Your task to perform on an android device: turn off priority inbox in the gmail app Image 0: 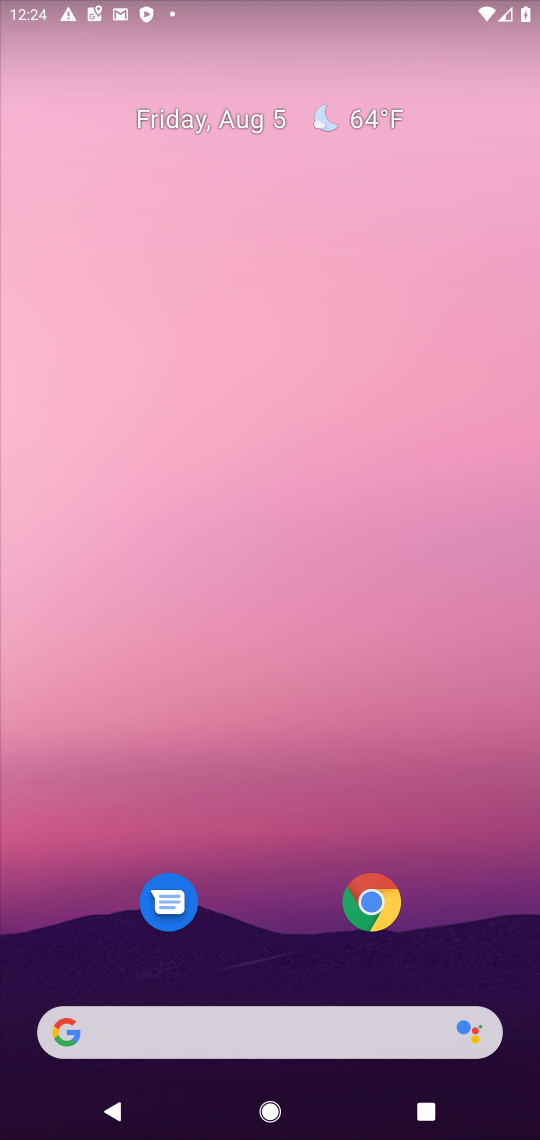
Step 0: drag from (280, 955) to (238, 188)
Your task to perform on an android device: turn off priority inbox in the gmail app Image 1: 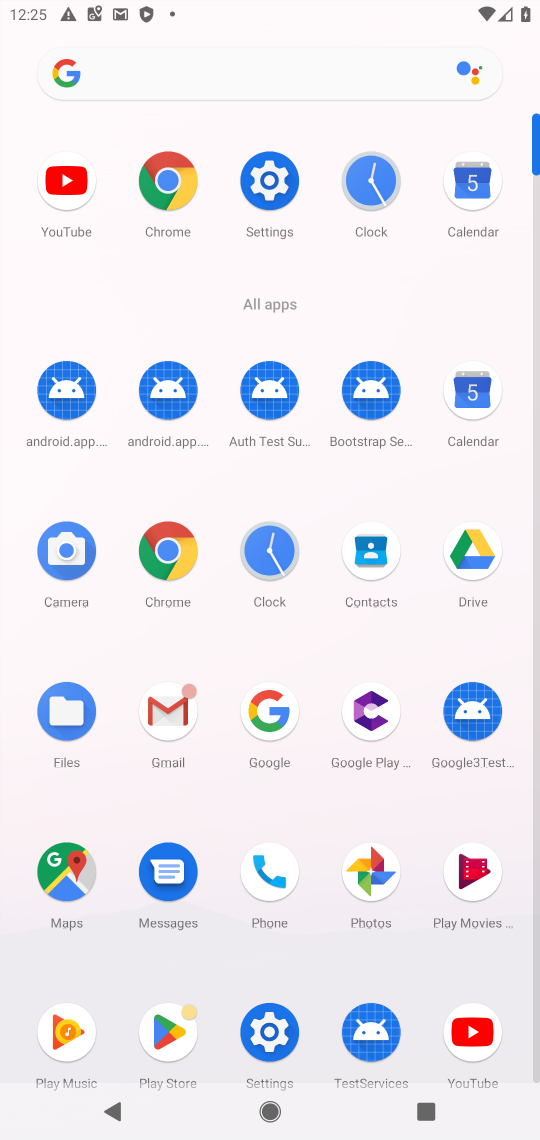
Step 1: click (158, 700)
Your task to perform on an android device: turn off priority inbox in the gmail app Image 2: 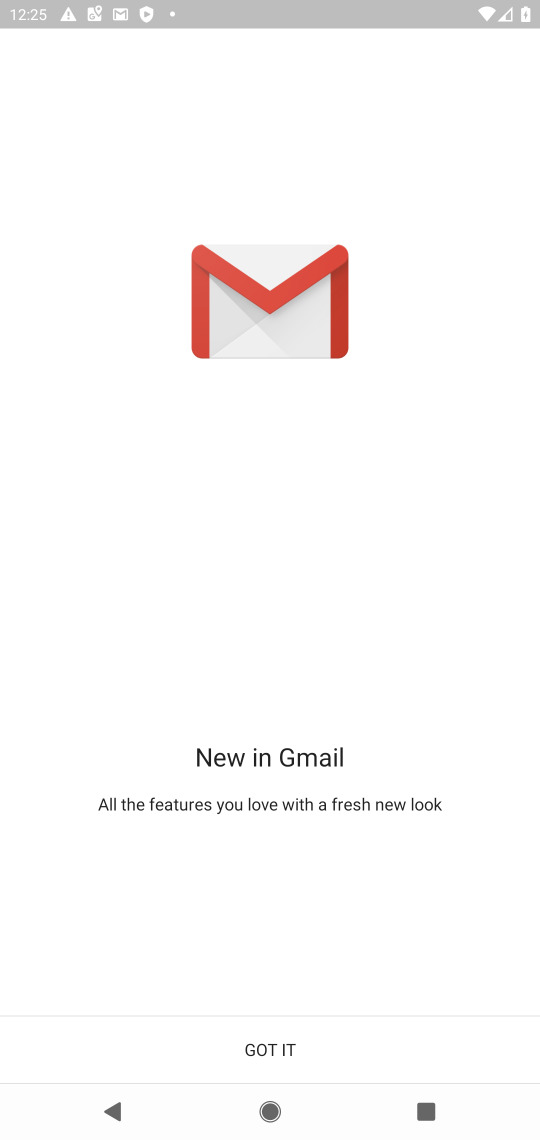
Step 2: click (276, 1046)
Your task to perform on an android device: turn off priority inbox in the gmail app Image 3: 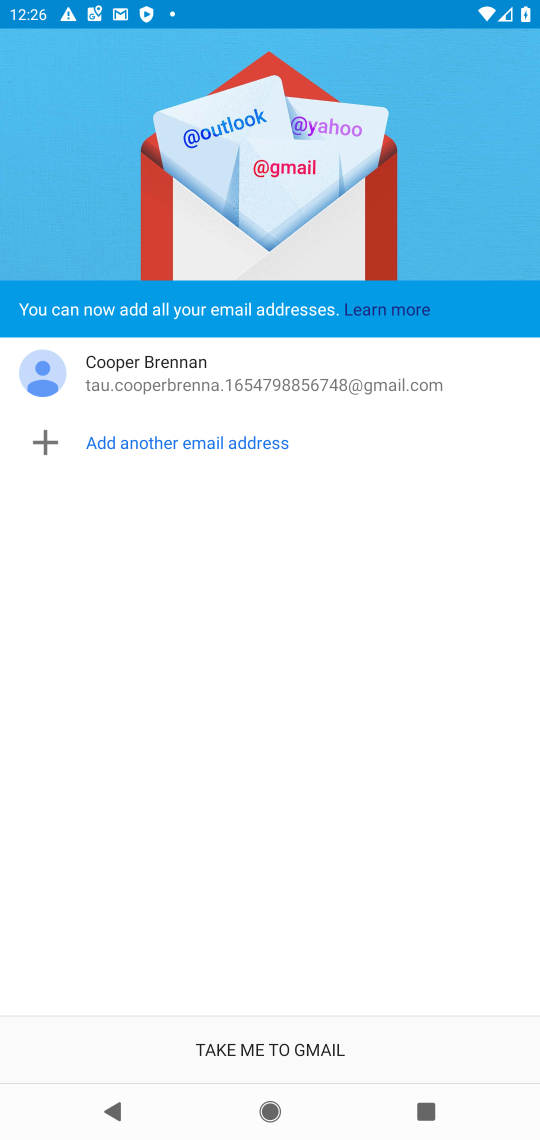
Step 3: click (275, 1041)
Your task to perform on an android device: turn off priority inbox in the gmail app Image 4: 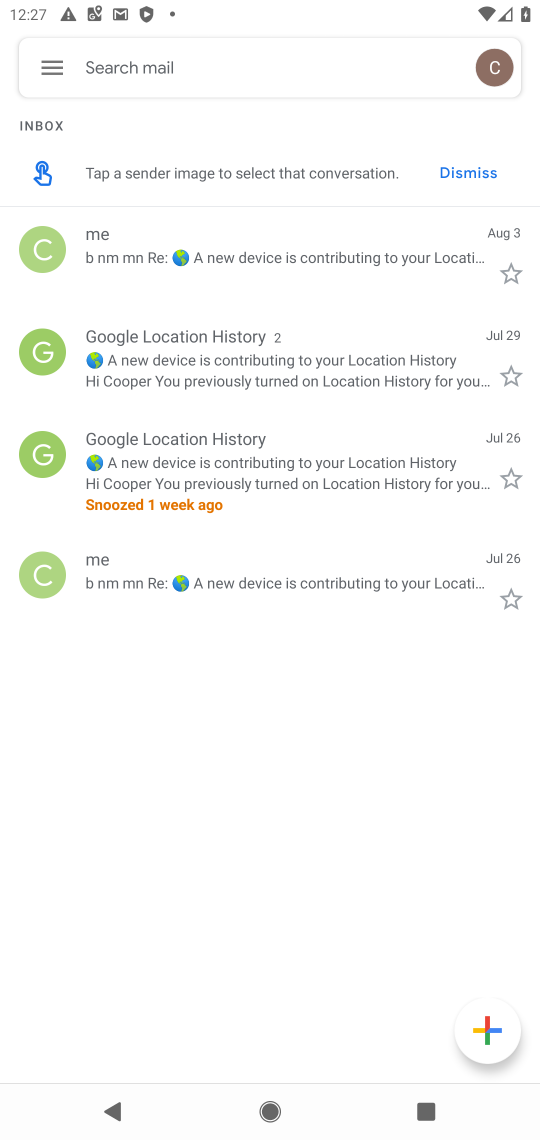
Step 4: click (55, 54)
Your task to perform on an android device: turn off priority inbox in the gmail app Image 5: 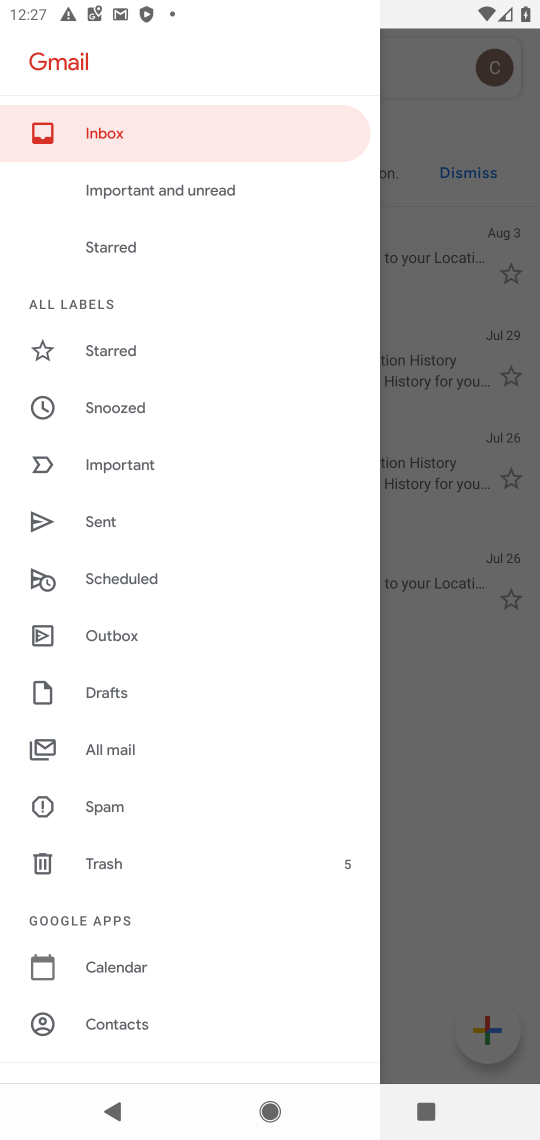
Step 5: drag from (142, 990) to (107, 464)
Your task to perform on an android device: turn off priority inbox in the gmail app Image 6: 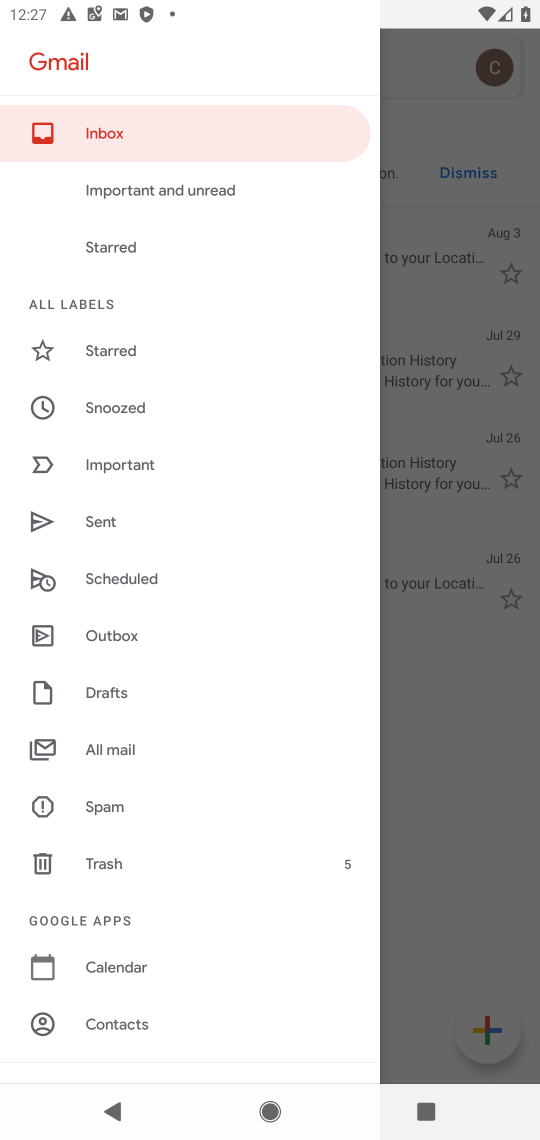
Step 6: drag from (171, 1001) to (107, 307)
Your task to perform on an android device: turn off priority inbox in the gmail app Image 7: 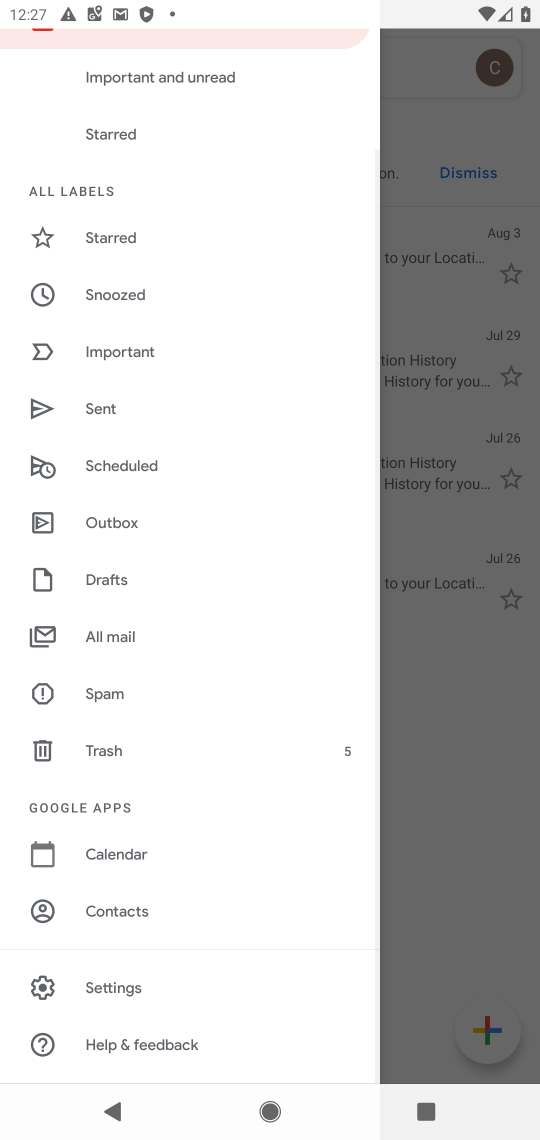
Step 7: click (146, 983)
Your task to perform on an android device: turn off priority inbox in the gmail app Image 8: 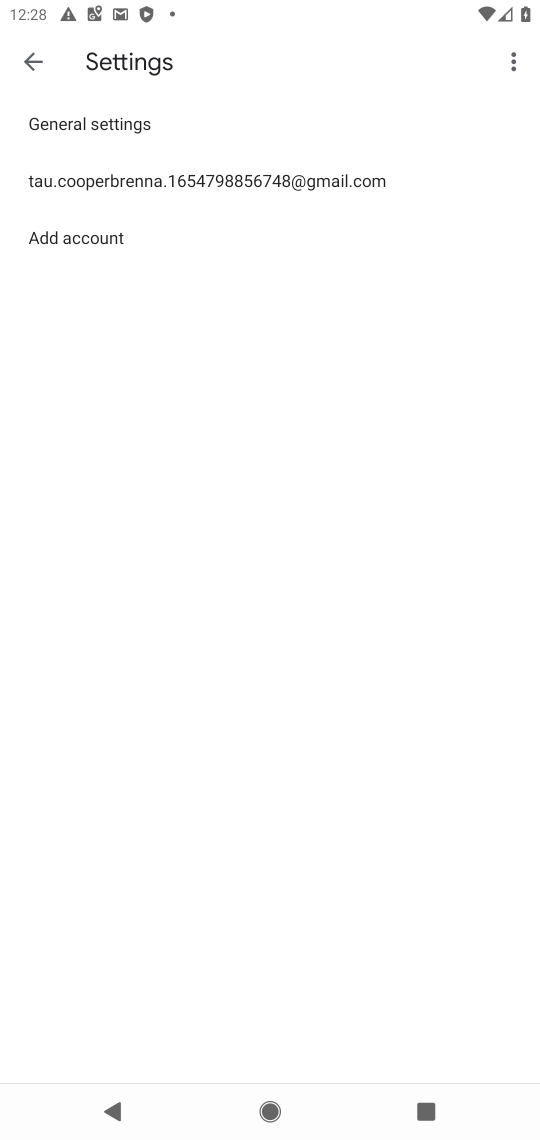
Step 8: click (204, 180)
Your task to perform on an android device: turn off priority inbox in the gmail app Image 9: 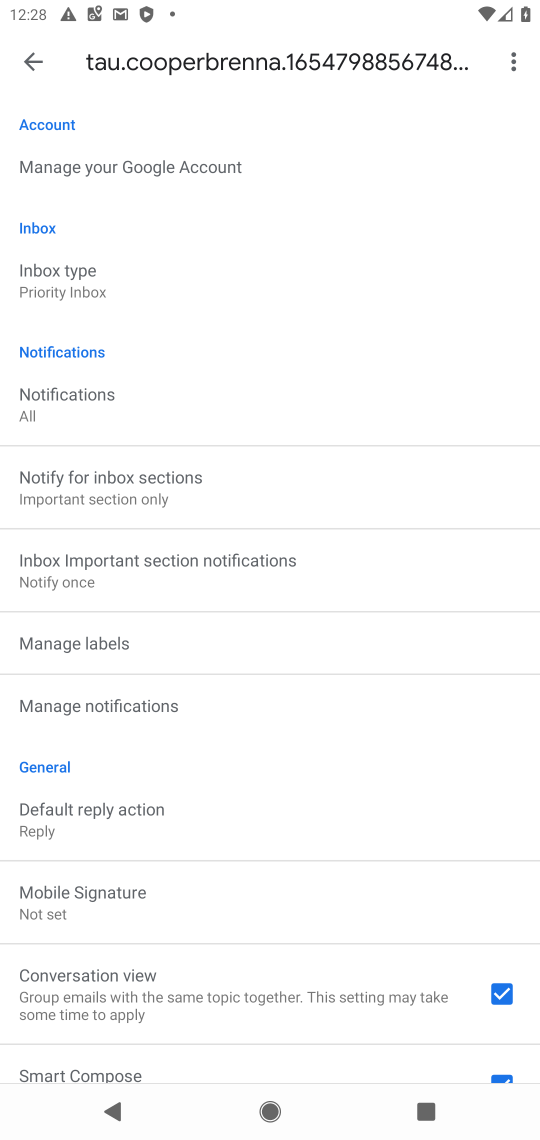
Step 9: click (113, 282)
Your task to perform on an android device: turn off priority inbox in the gmail app Image 10: 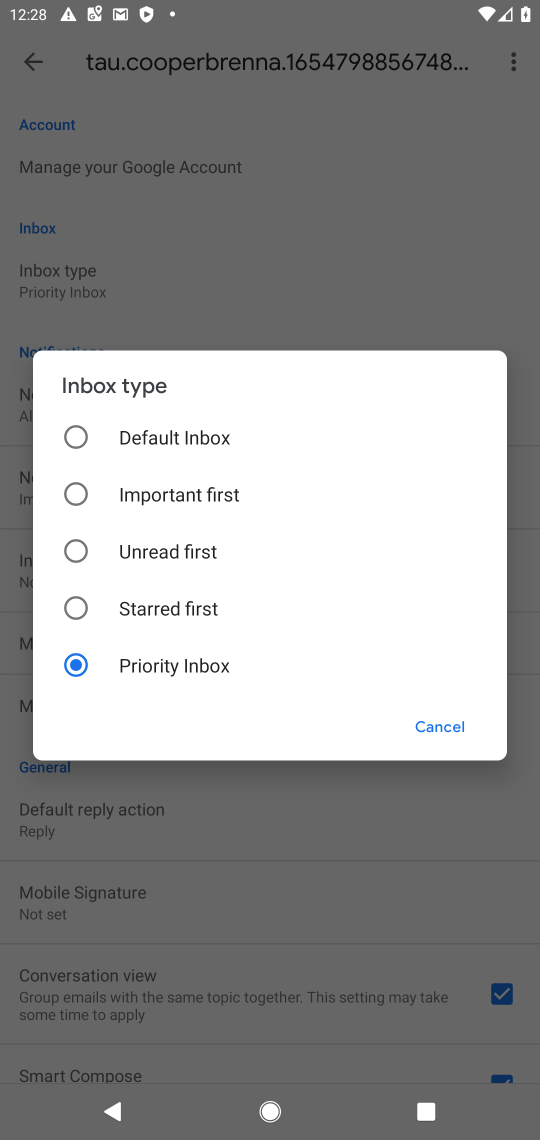
Step 10: click (67, 608)
Your task to perform on an android device: turn off priority inbox in the gmail app Image 11: 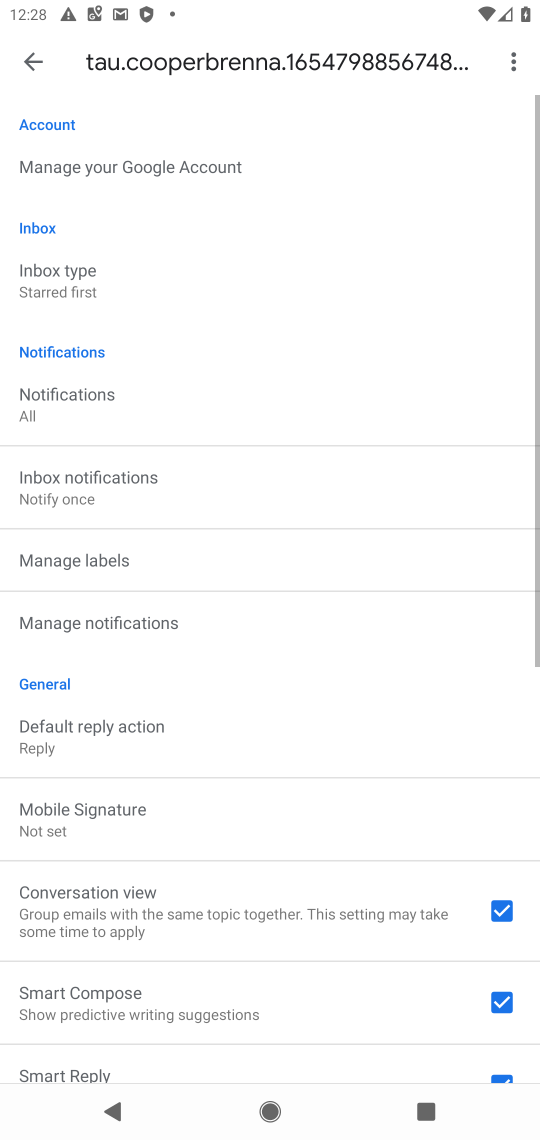
Step 11: task complete